Your task to perform on an android device: stop showing notifications on the lock screen Image 0: 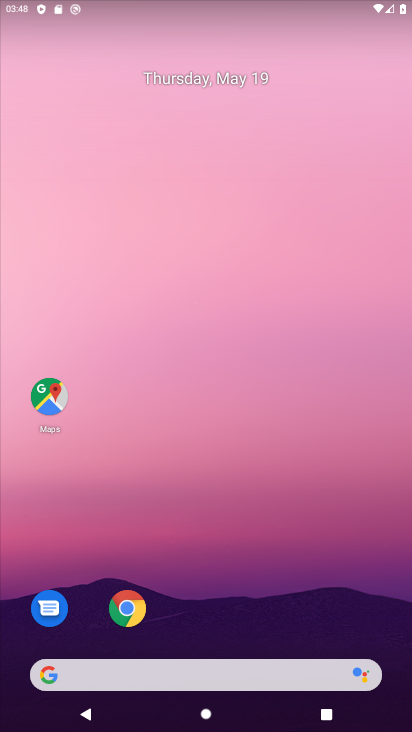
Step 0: drag from (259, 568) to (229, 132)
Your task to perform on an android device: stop showing notifications on the lock screen Image 1: 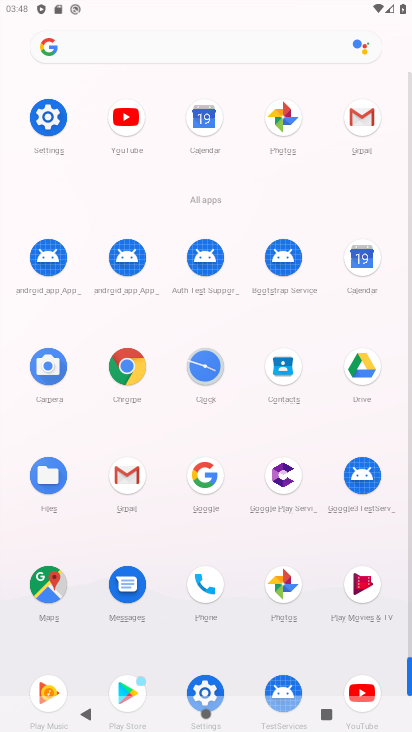
Step 1: click (49, 117)
Your task to perform on an android device: stop showing notifications on the lock screen Image 2: 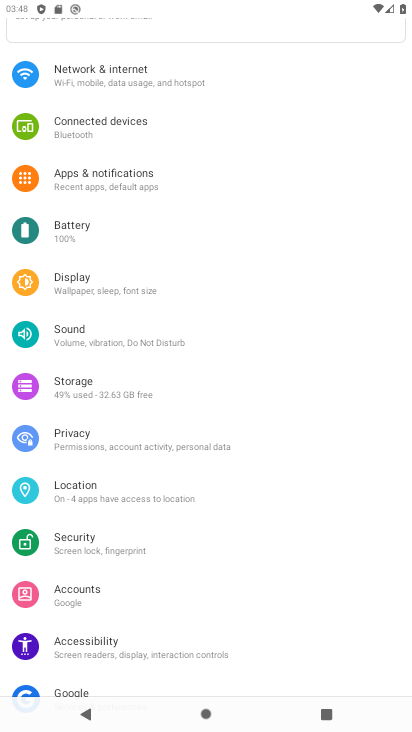
Step 2: click (132, 177)
Your task to perform on an android device: stop showing notifications on the lock screen Image 3: 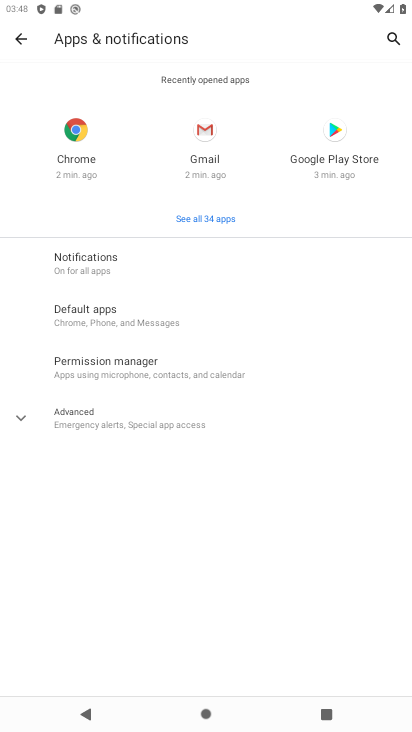
Step 3: click (94, 259)
Your task to perform on an android device: stop showing notifications on the lock screen Image 4: 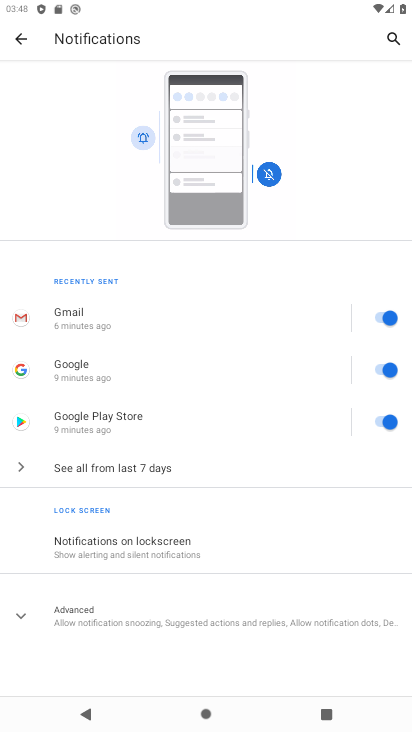
Step 4: click (126, 543)
Your task to perform on an android device: stop showing notifications on the lock screen Image 5: 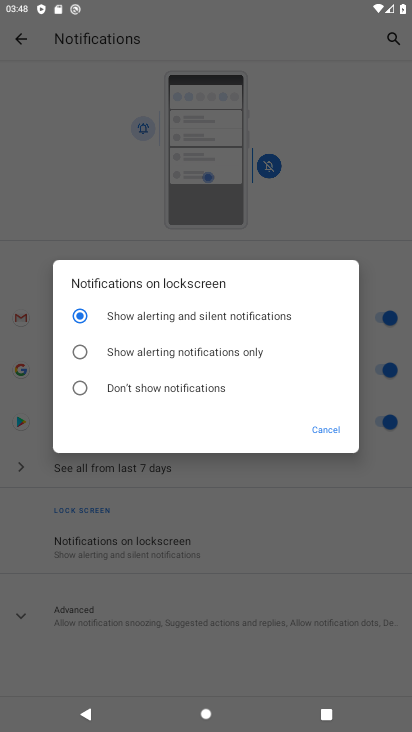
Step 5: click (81, 391)
Your task to perform on an android device: stop showing notifications on the lock screen Image 6: 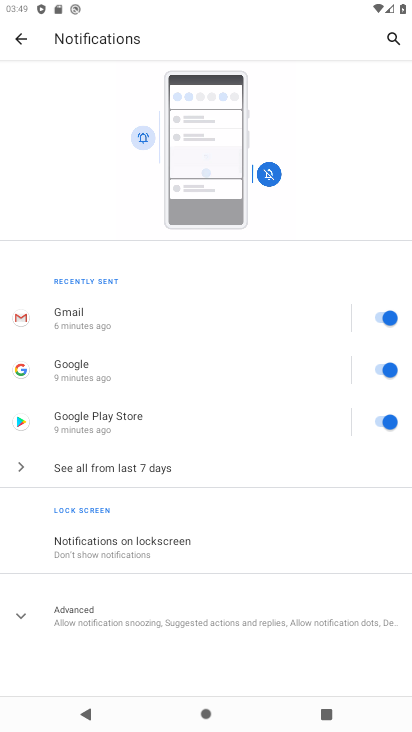
Step 6: task complete